Your task to perform on an android device: turn on showing notifications on the lock screen Image 0: 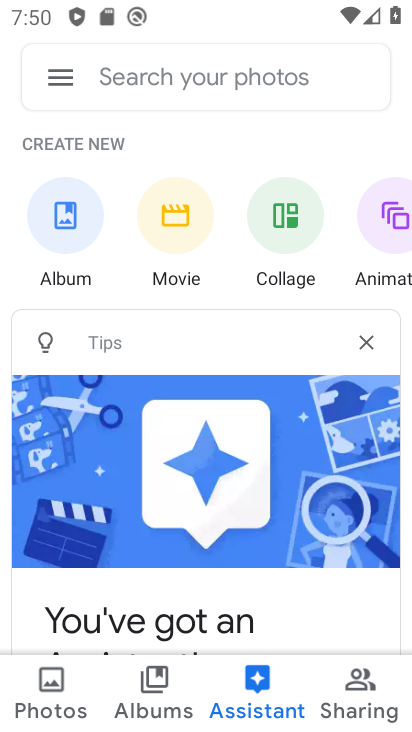
Step 0: press home button
Your task to perform on an android device: turn on showing notifications on the lock screen Image 1: 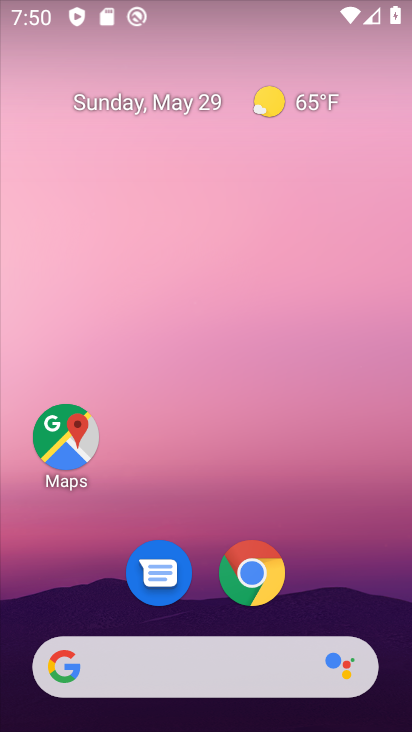
Step 1: drag from (182, 595) to (228, 170)
Your task to perform on an android device: turn on showing notifications on the lock screen Image 2: 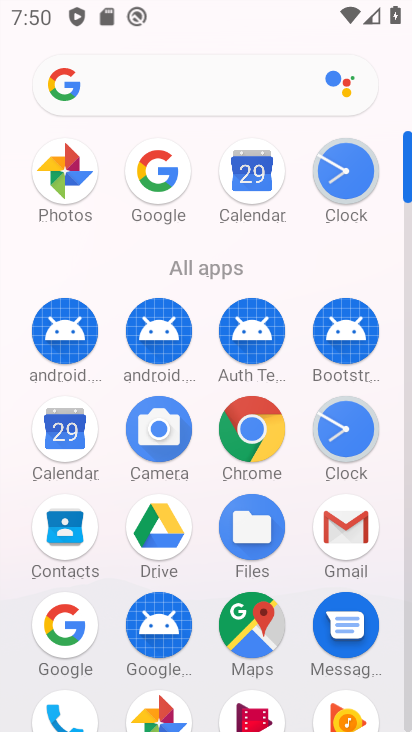
Step 2: drag from (82, 577) to (101, 424)
Your task to perform on an android device: turn on showing notifications on the lock screen Image 3: 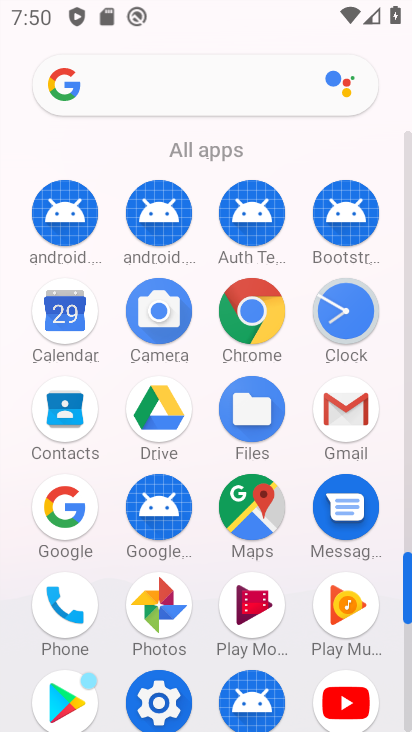
Step 3: click (142, 675)
Your task to perform on an android device: turn on showing notifications on the lock screen Image 4: 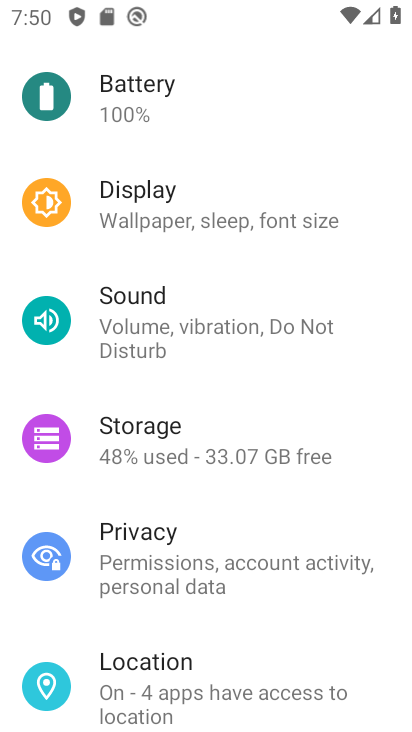
Step 4: drag from (221, 277) to (271, 563)
Your task to perform on an android device: turn on showing notifications on the lock screen Image 5: 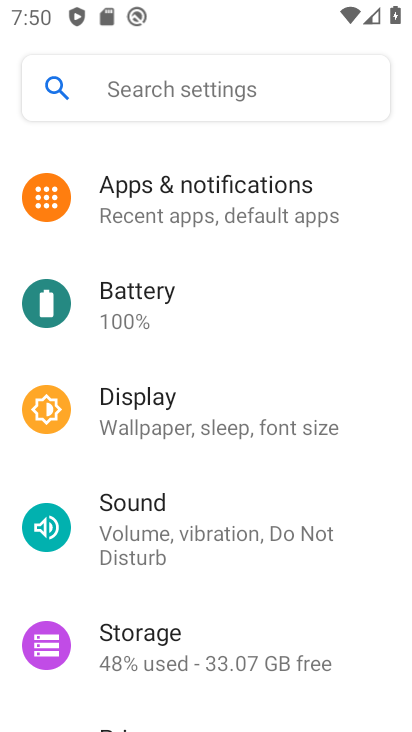
Step 5: click (211, 224)
Your task to perform on an android device: turn on showing notifications on the lock screen Image 6: 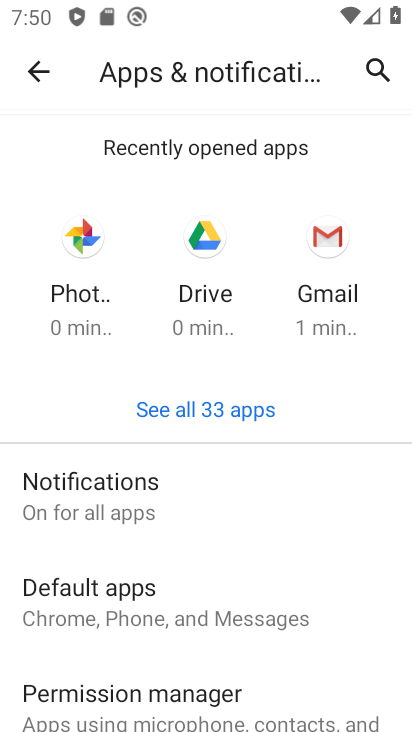
Step 6: click (151, 506)
Your task to perform on an android device: turn on showing notifications on the lock screen Image 7: 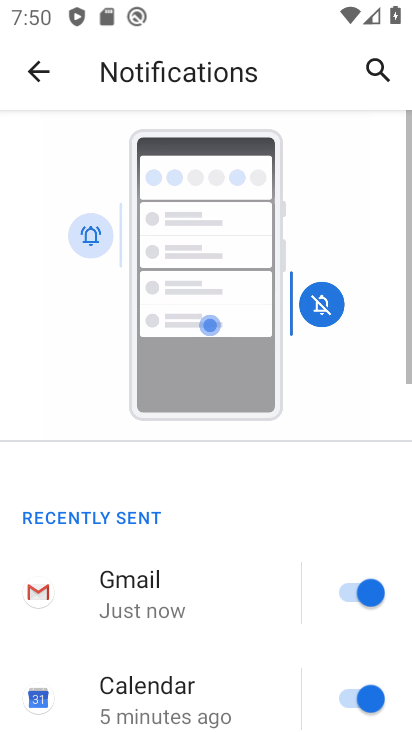
Step 7: drag from (186, 629) to (187, 221)
Your task to perform on an android device: turn on showing notifications on the lock screen Image 8: 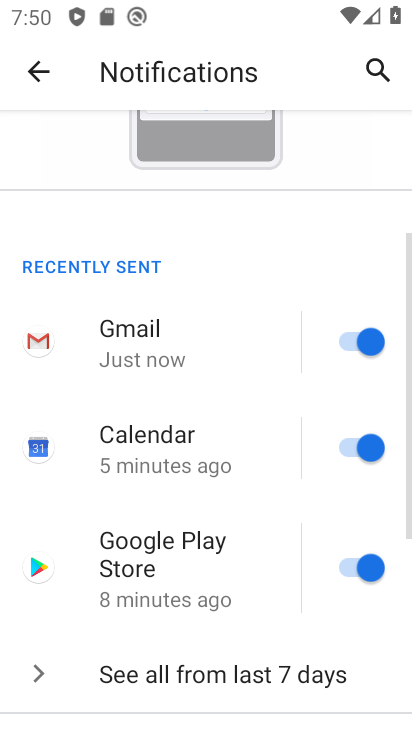
Step 8: drag from (220, 579) to (251, 228)
Your task to perform on an android device: turn on showing notifications on the lock screen Image 9: 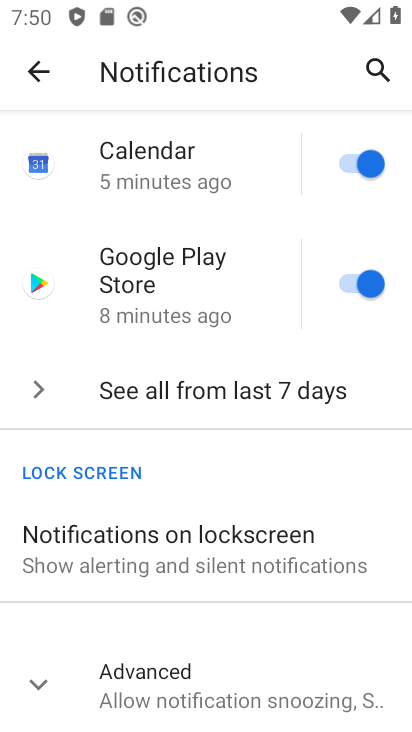
Step 9: click (248, 564)
Your task to perform on an android device: turn on showing notifications on the lock screen Image 10: 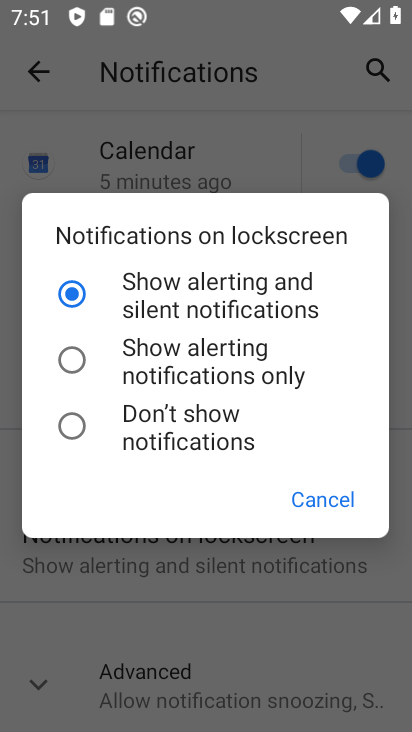
Step 10: task complete